Your task to perform on an android device: delete browsing data in the chrome app Image 0: 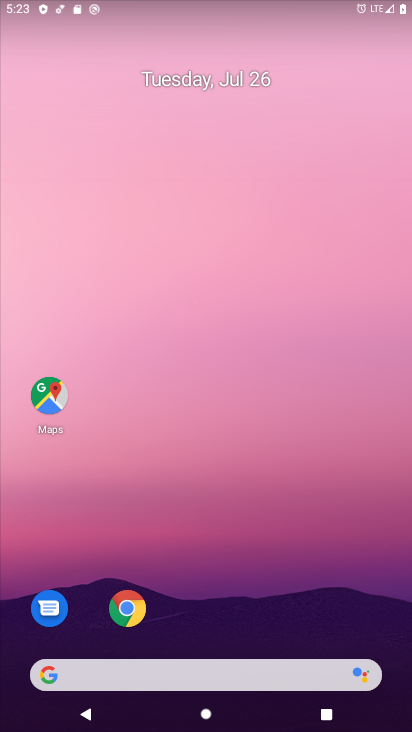
Step 0: drag from (335, 629) to (167, 17)
Your task to perform on an android device: delete browsing data in the chrome app Image 1: 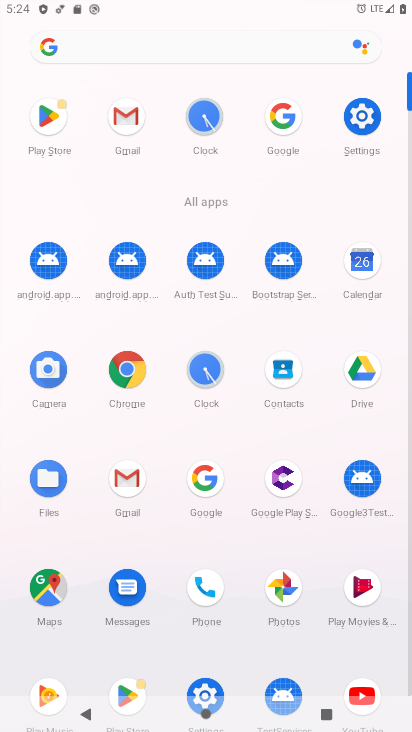
Step 1: click (124, 365)
Your task to perform on an android device: delete browsing data in the chrome app Image 2: 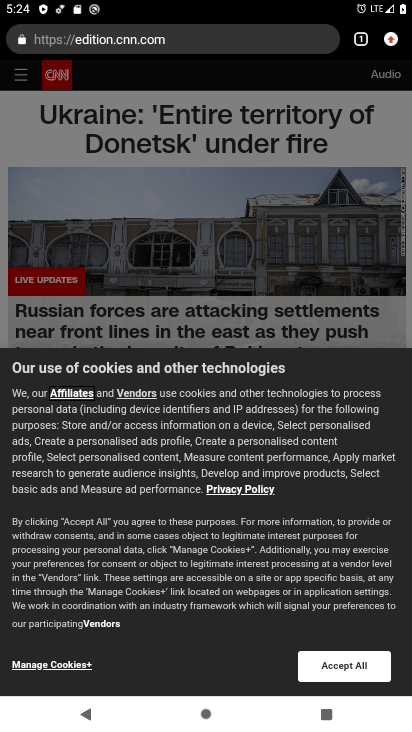
Step 2: click (395, 37)
Your task to perform on an android device: delete browsing data in the chrome app Image 3: 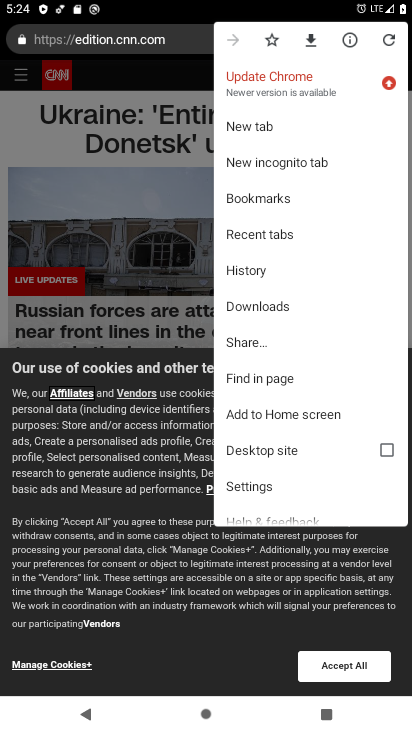
Step 3: click (251, 271)
Your task to perform on an android device: delete browsing data in the chrome app Image 4: 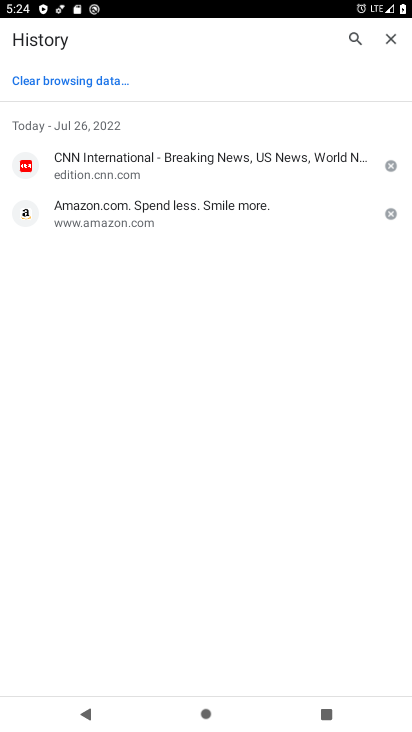
Step 4: click (101, 89)
Your task to perform on an android device: delete browsing data in the chrome app Image 5: 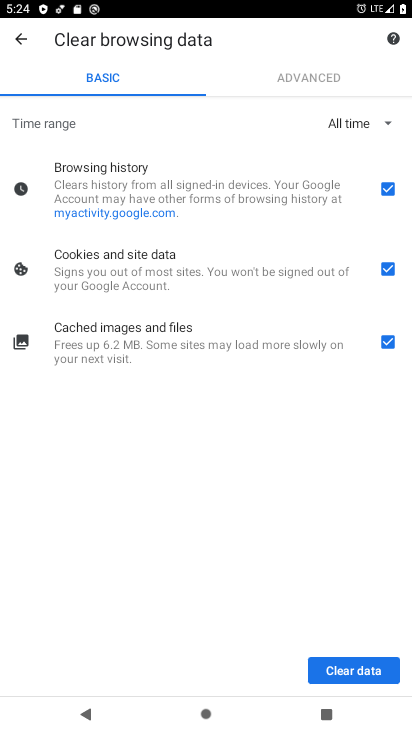
Step 5: click (339, 665)
Your task to perform on an android device: delete browsing data in the chrome app Image 6: 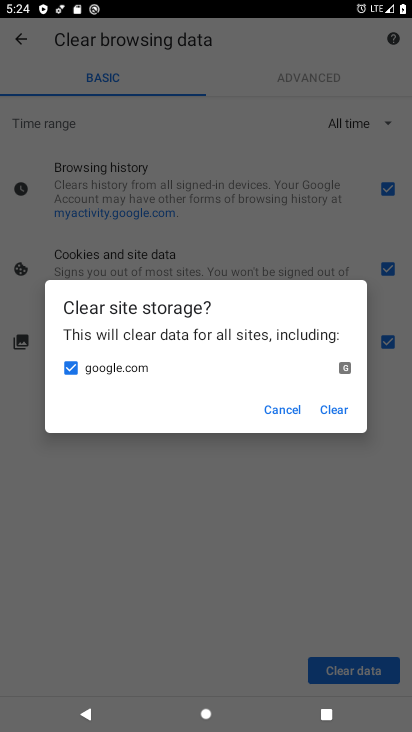
Step 6: click (331, 410)
Your task to perform on an android device: delete browsing data in the chrome app Image 7: 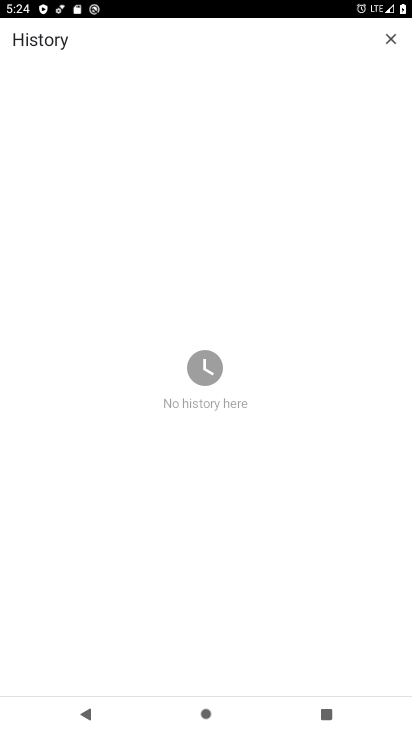
Step 7: task complete